Your task to perform on an android device: delete a single message in the gmail app Image 0: 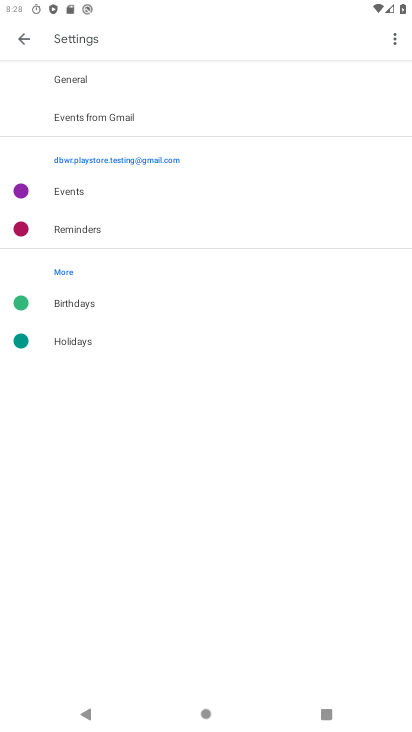
Step 0: press home button
Your task to perform on an android device: delete a single message in the gmail app Image 1: 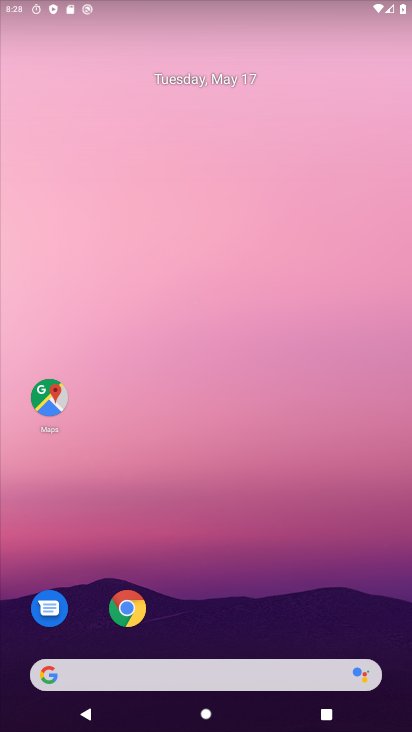
Step 1: drag from (355, 620) to (344, 185)
Your task to perform on an android device: delete a single message in the gmail app Image 2: 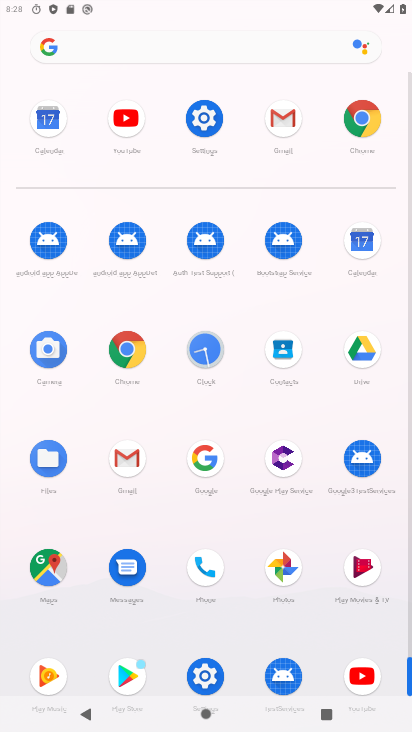
Step 2: click (126, 463)
Your task to perform on an android device: delete a single message in the gmail app Image 3: 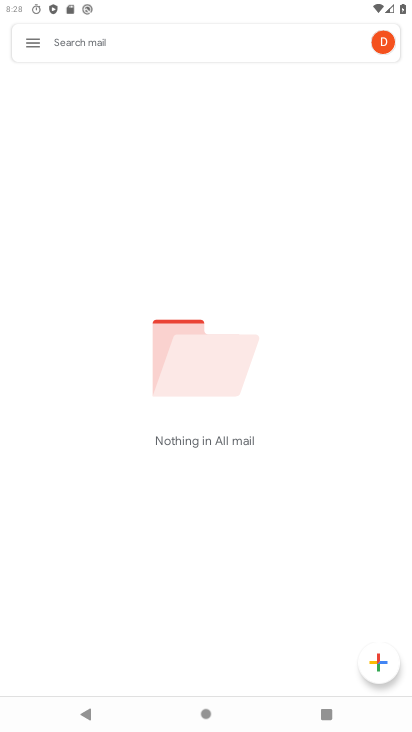
Step 3: task complete